Your task to perform on an android device: toggle location history Image 0: 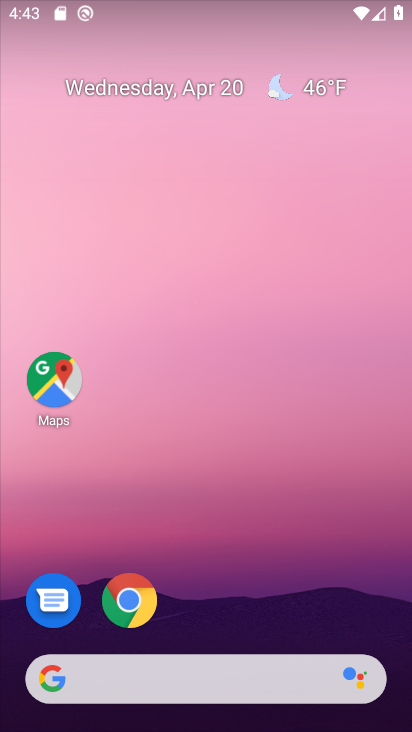
Step 0: drag from (220, 467) to (220, 13)
Your task to perform on an android device: toggle location history Image 1: 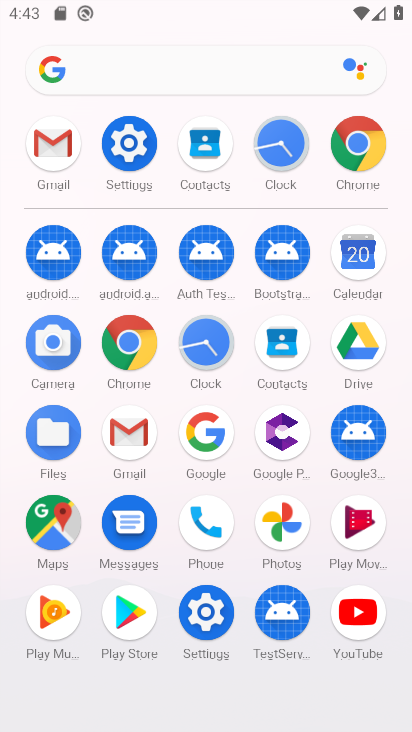
Step 1: click (204, 604)
Your task to perform on an android device: toggle location history Image 2: 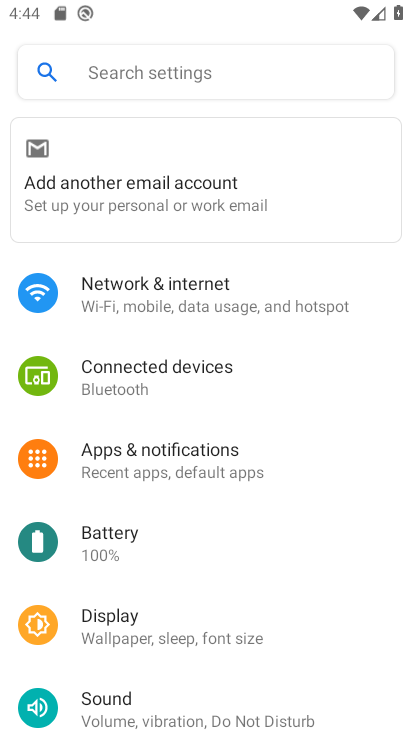
Step 2: drag from (173, 667) to (143, 224)
Your task to perform on an android device: toggle location history Image 3: 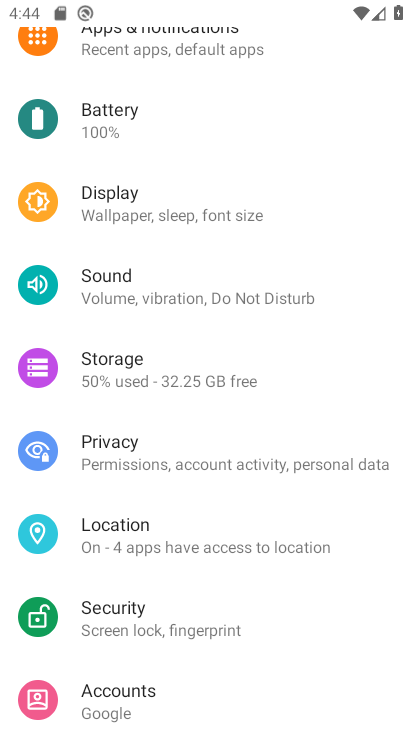
Step 3: click (170, 523)
Your task to perform on an android device: toggle location history Image 4: 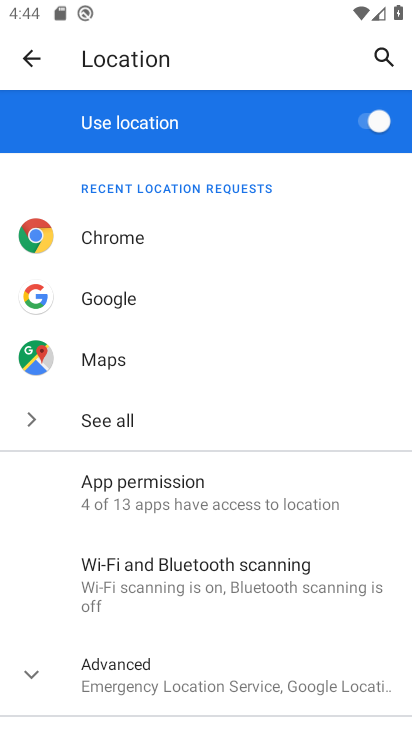
Step 4: click (27, 670)
Your task to perform on an android device: toggle location history Image 5: 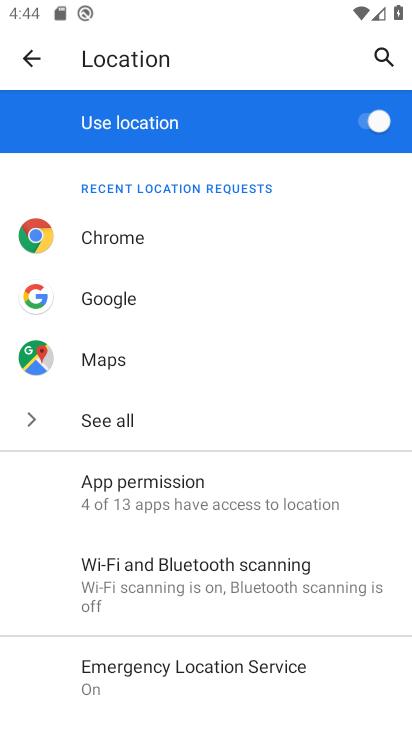
Step 5: drag from (175, 647) to (161, 321)
Your task to perform on an android device: toggle location history Image 6: 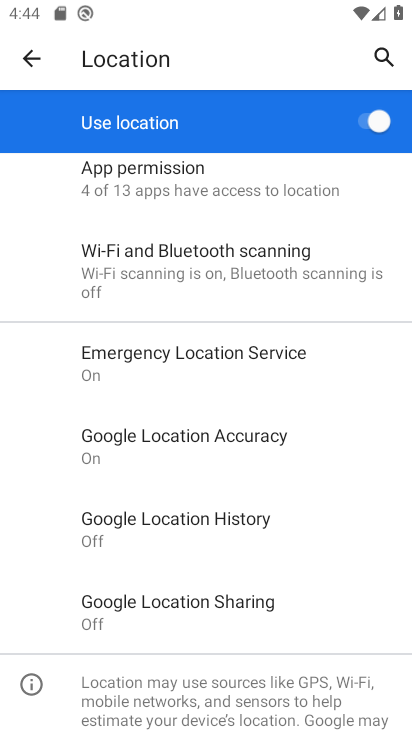
Step 6: click (205, 529)
Your task to perform on an android device: toggle location history Image 7: 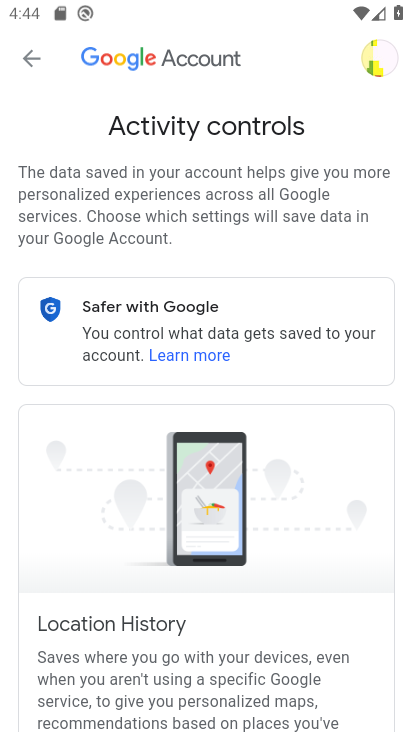
Step 7: drag from (216, 675) to (201, 285)
Your task to perform on an android device: toggle location history Image 8: 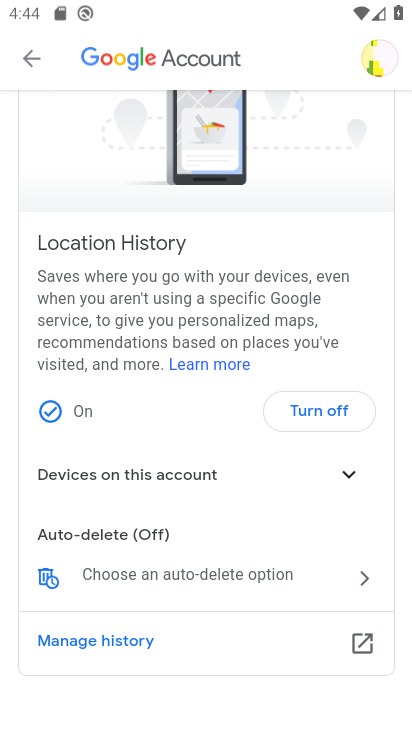
Step 8: drag from (219, 622) to (191, 307)
Your task to perform on an android device: toggle location history Image 9: 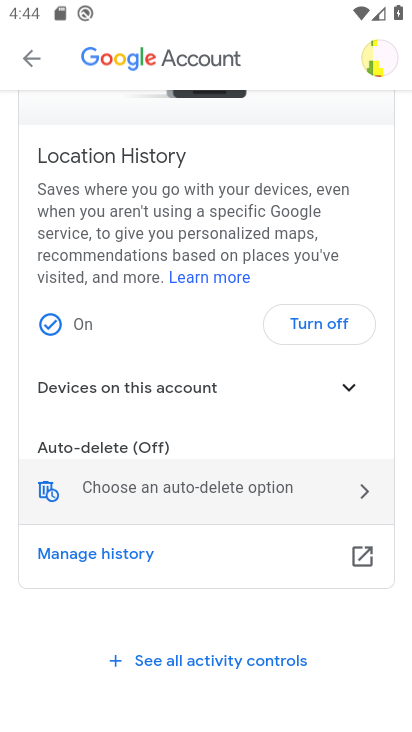
Step 9: click (324, 326)
Your task to perform on an android device: toggle location history Image 10: 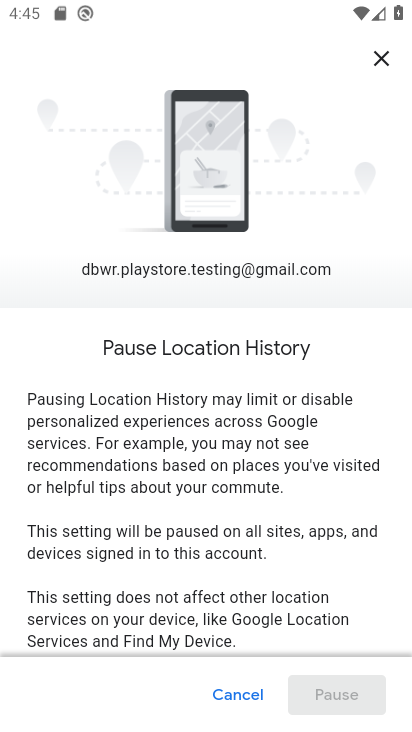
Step 10: drag from (229, 612) to (270, 130)
Your task to perform on an android device: toggle location history Image 11: 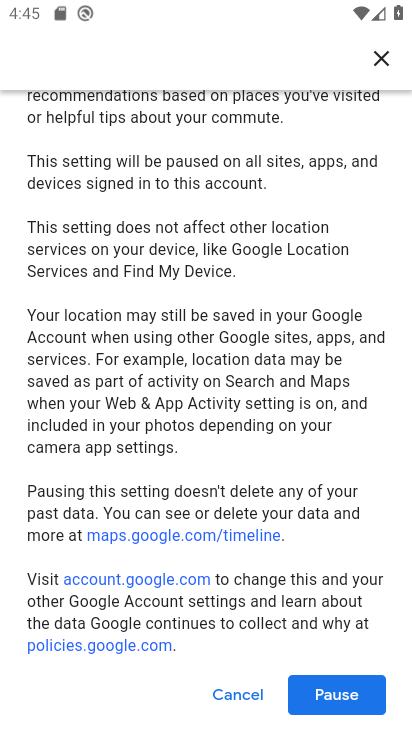
Step 11: drag from (282, 590) to (288, 205)
Your task to perform on an android device: toggle location history Image 12: 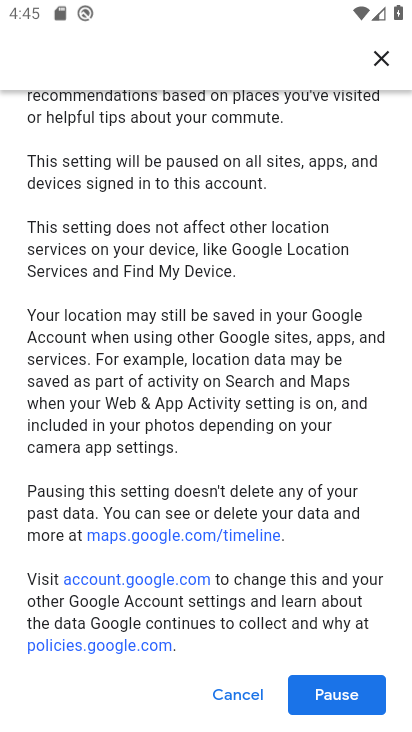
Step 12: click (334, 691)
Your task to perform on an android device: toggle location history Image 13: 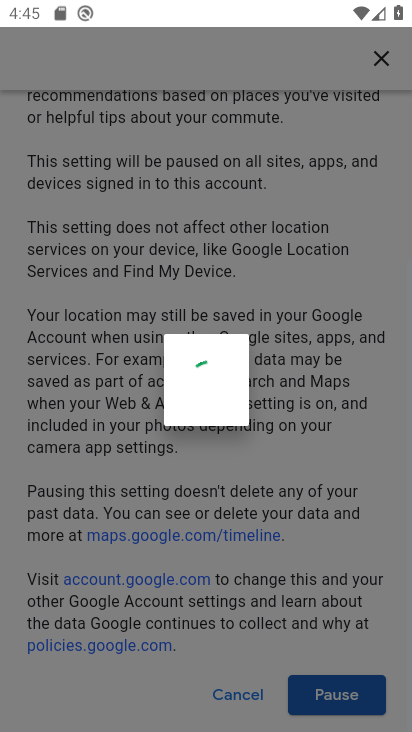
Step 13: click (339, 693)
Your task to perform on an android device: toggle location history Image 14: 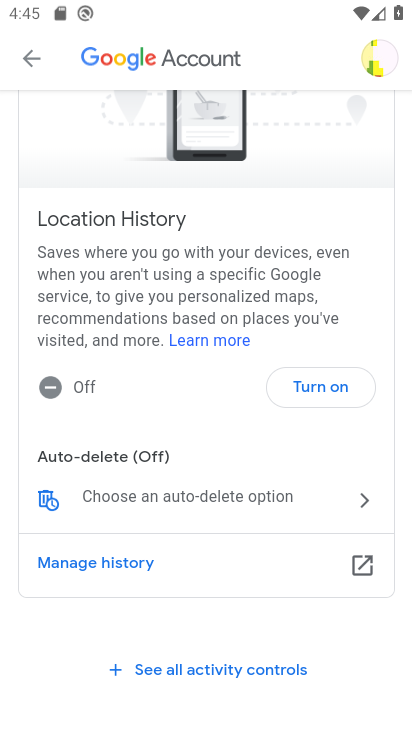
Step 14: task complete